Your task to perform on an android device: Open notification settings Image 0: 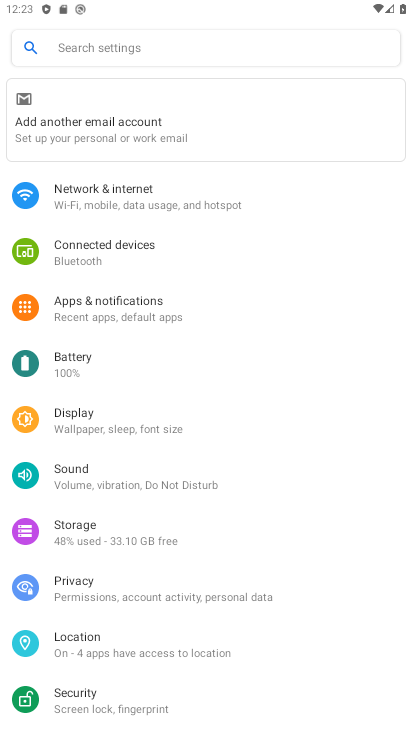
Step 0: click (100, 309)
Your task to perform on an android device: Open notification settings Image 1: 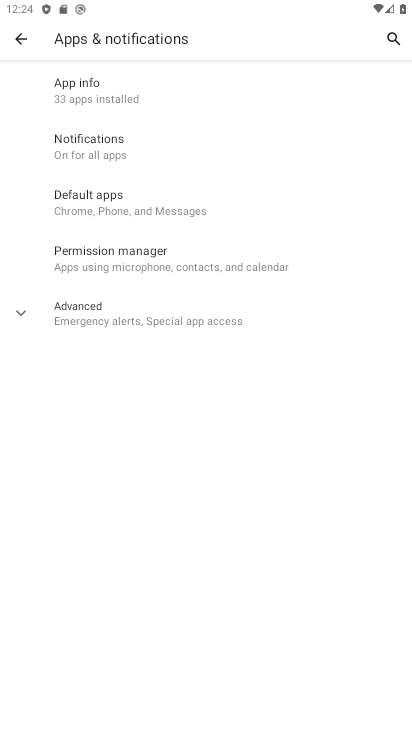
Step 1: click (95, 152)
Your task to perform on an android device: Open notification settings Image 2: 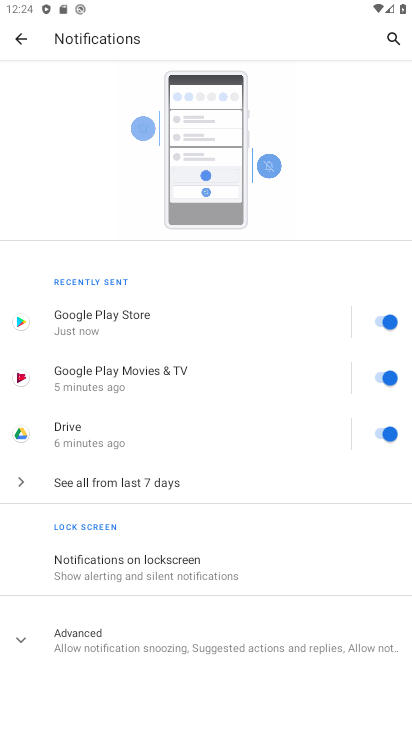
Step 2: task complete